Your task to perform on an android device: check data usage Image 0: 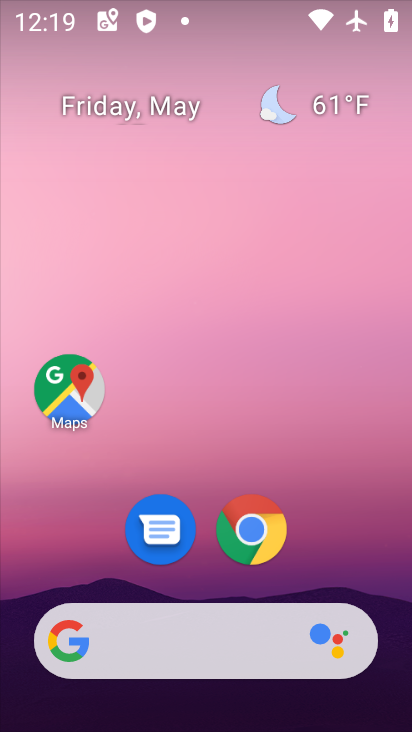
Step 0: drag from (338, 556) to (309, 173)
Your task to perform on an android device: check data usage Image 1: 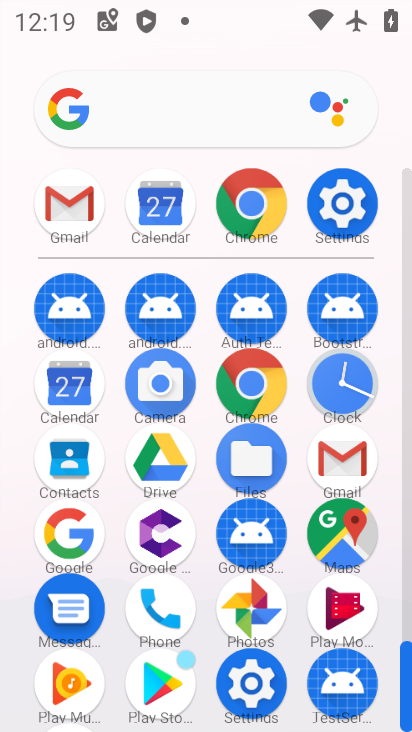
Step 1: click (351, 207)
Your task to perform on an android device: check data usage Image 2: 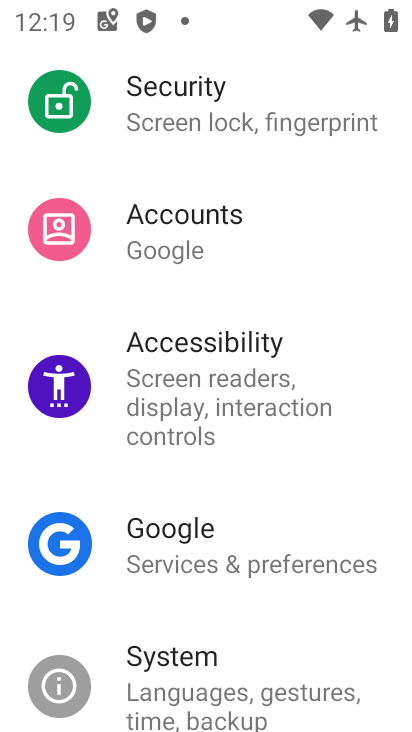
Step 2: drag from (268, 212) to (252, 671)
Your task to perform on an android device: check data usage Image 3: 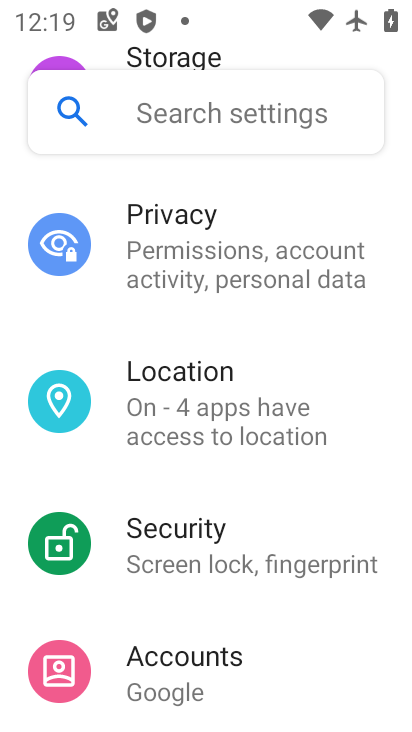
Step 3: drag from (221, 278) to (212, 620)
Your task to perform on an android device: check data usage Image 4: 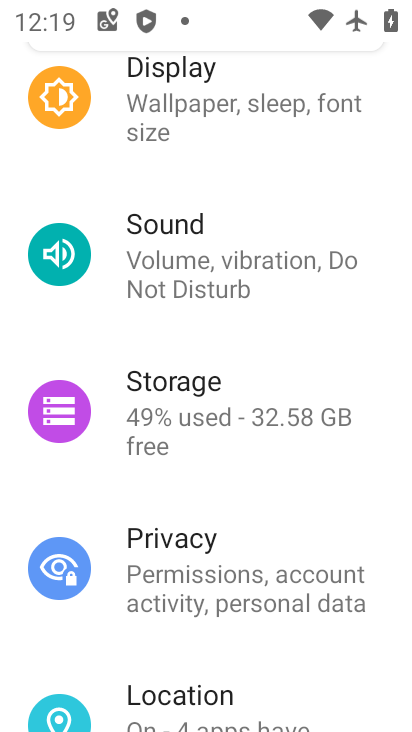
Step 4: drag from (192, 301) to (215, 714)
Your task to perform on an android device: check data usage Image 5: 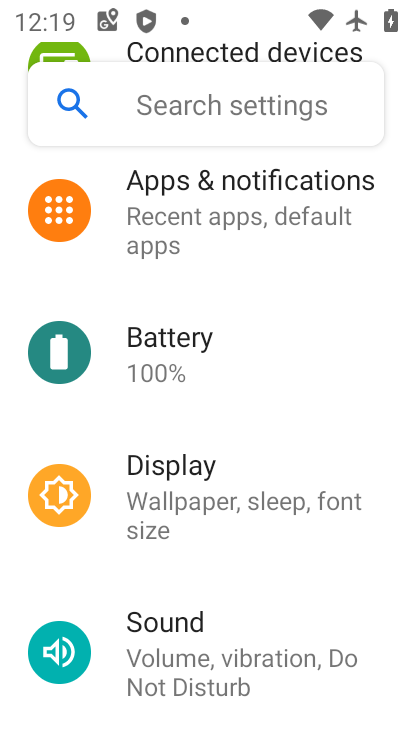
Step 5: drag from (215, 325) to (229, 720)
Your task to perform on an android device: check data usage Image 6: 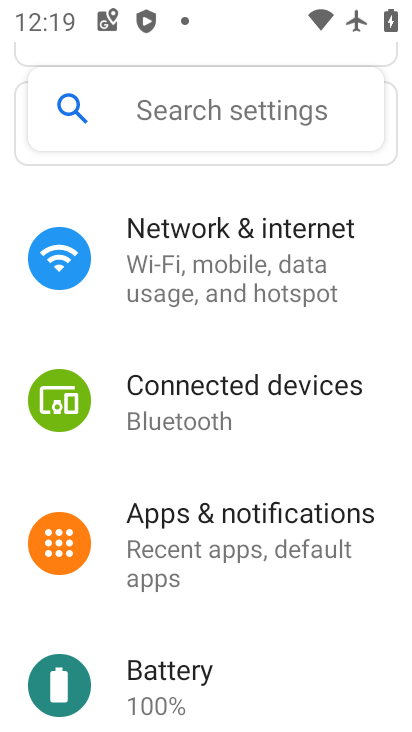
Step 6: click (177, 316)
Your task to perform on an android device: check data usage Image 7: 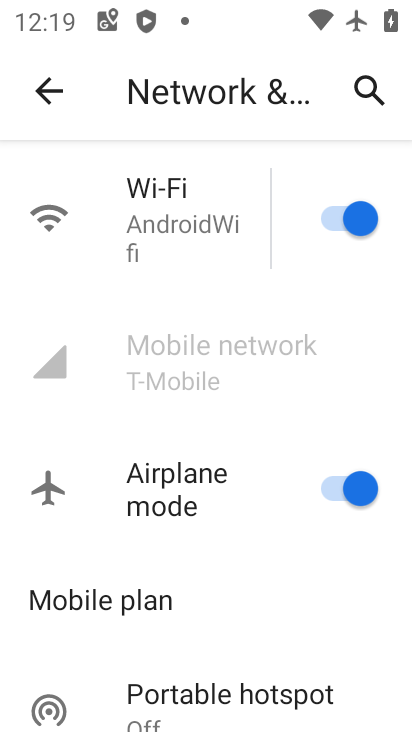
Step 7: click (318, 507)
Your task to perform on an android device: check data usage Image 8: 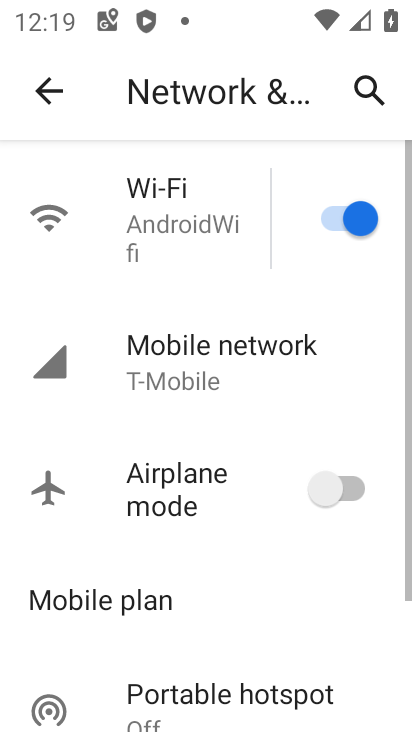
Step 8: click (217, 353)
Your task to perform on an android device: check data usage Image 9: 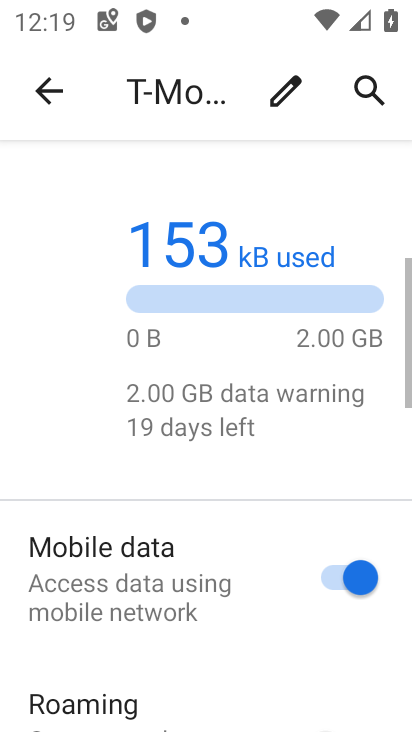
Step 9: task complete